Your task to perform on an android device: change text size in settings app Image 0: 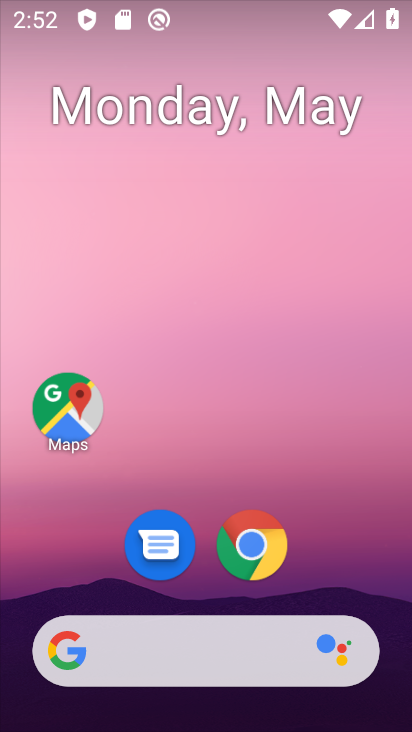
Step 0: drag from (146, 727) to (213, 0)
Your task to perform on an android device: change text size in settings app Image 1: 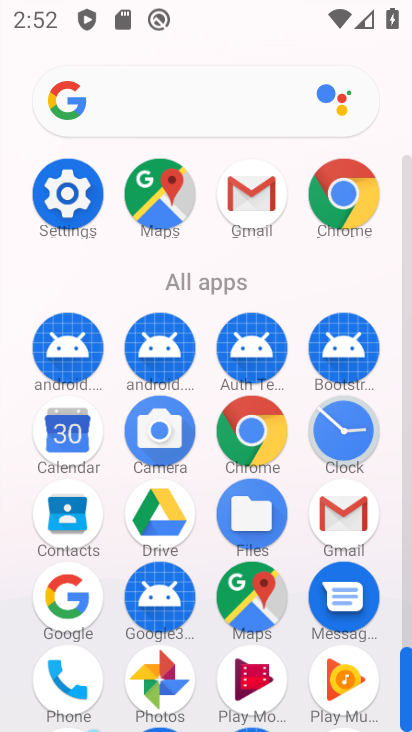
Step 1: click (51, 216)
Your task to perform on an android device: change text size in settings app Image 2: 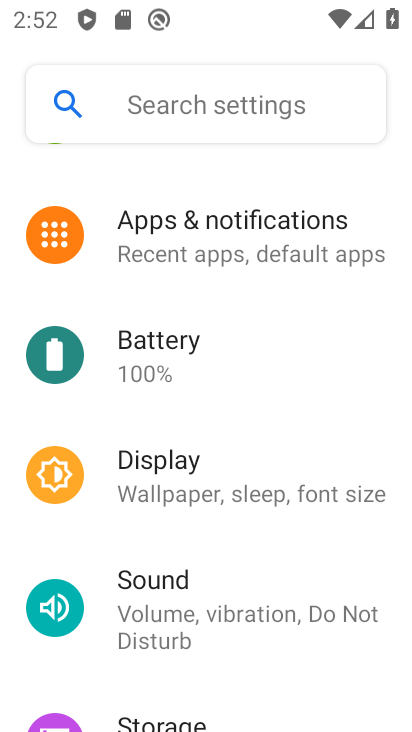
Step 2: click (158, 467)
Your task to perform on an android device: change text size in settings app Image 3: 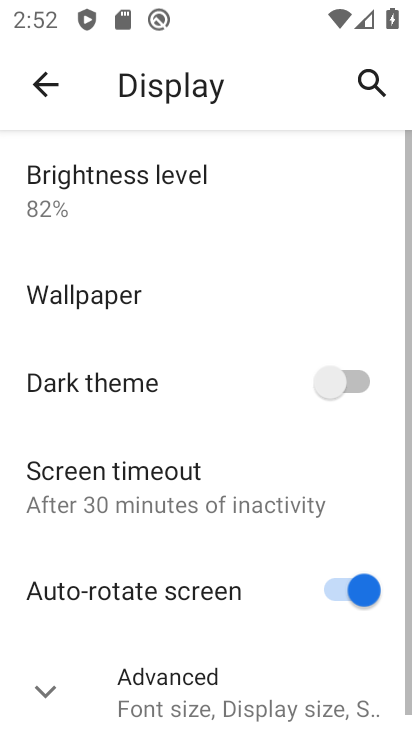
Step 3: drag from (267, 602) to (246, 201)
Your task to perform on an android device: change text size in settings app Image 4: 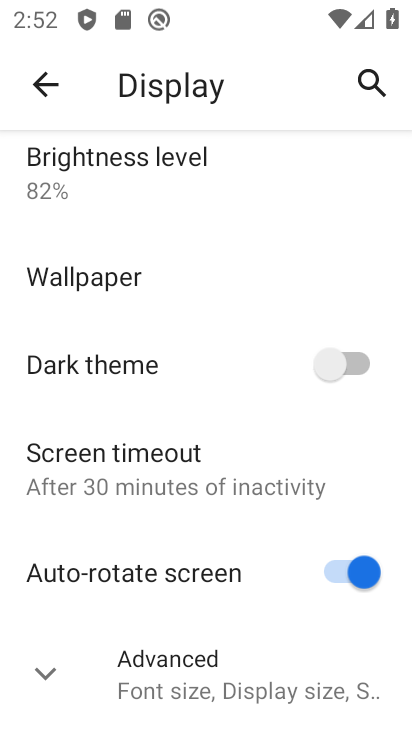
Step 4: click (225, 693)
Your task to perform on an android device: change text size in settings app Image 5: 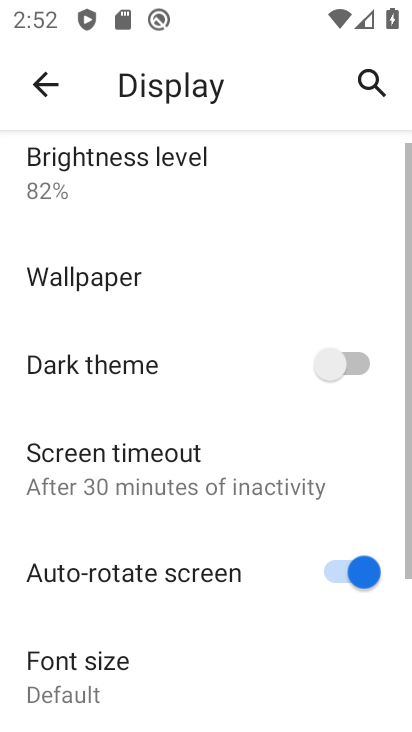
Step 5: drag from (172, 637) to (121, 232)
Your task to perform on an android device: change text size in settings app Image 6: 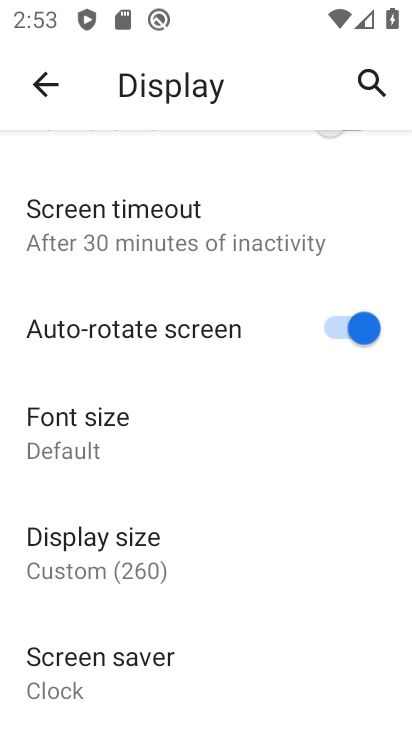
Step 6: click (94, 448)
Your task to perform on an android device: change text size in settings app Image 7: 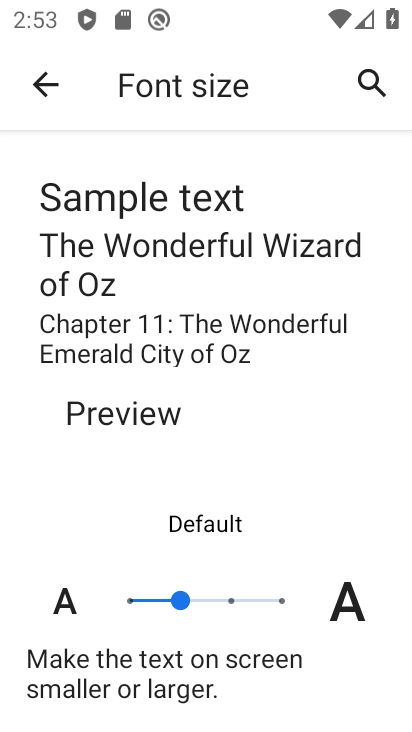
Step 7: click (225, 600)
Your task to perform on an android device: change text size in settings app Image 8: 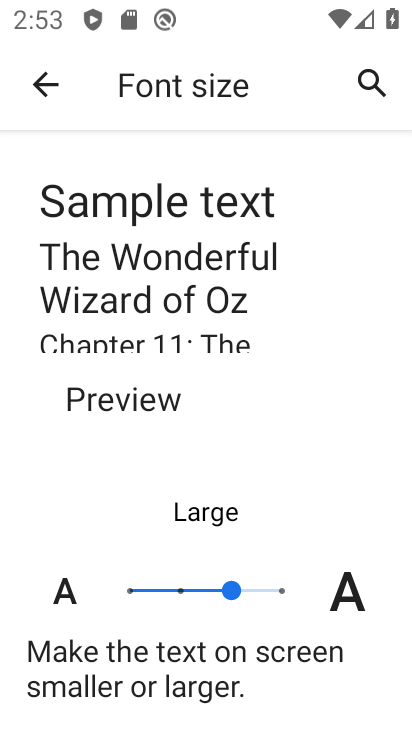
Step 8: task complete